Your task to perform on an android device: add a label to a message in the gmail app Image 0: 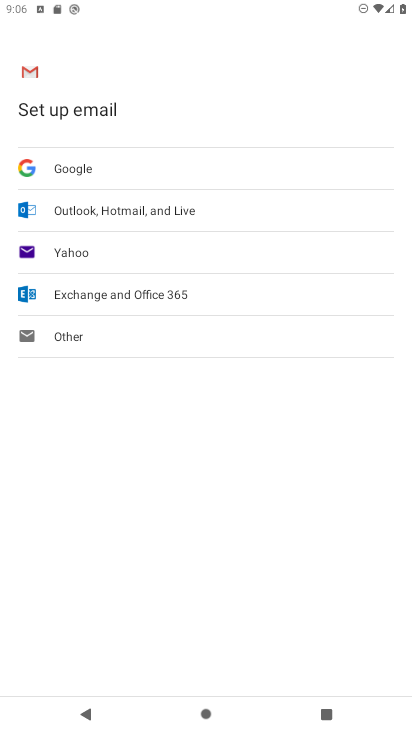
Step 0: press home button
Your task to perform on an android device: add a label to a message in the gmail app Image 1: 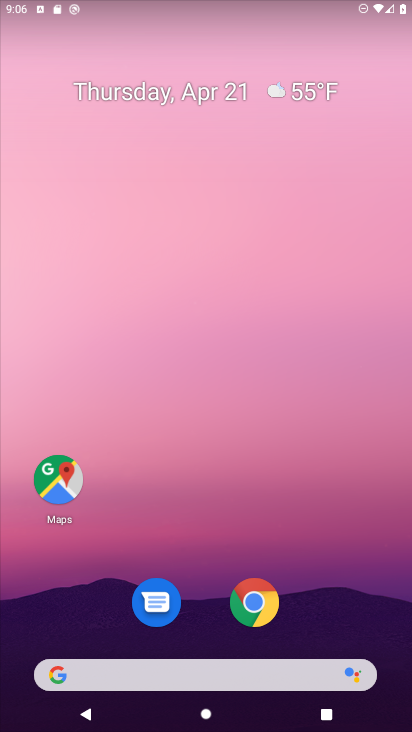
Step 1: drag from (209, 547) to (175, 15)
Your task to perform on an android device: add a label to a message in the gmail app Image 2: 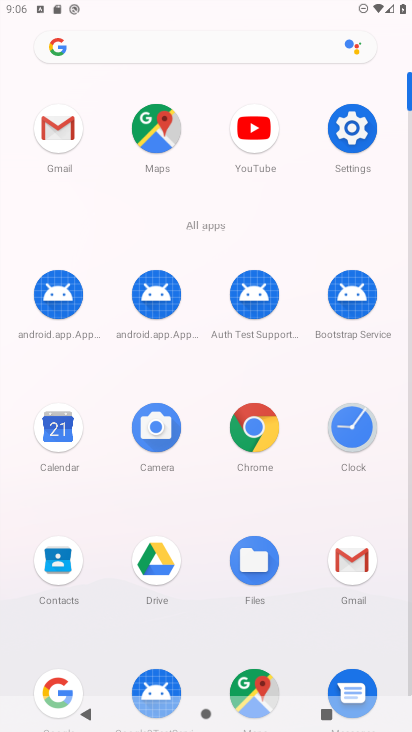
Step 2: click (348, 562)
Your task to perform on an android device: add a label to a message in the gmail app Image 3: 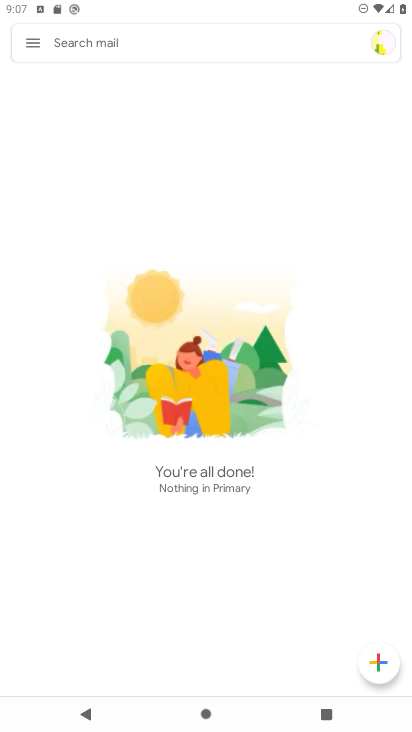
Step 3: click (44, 57)
Your task to perform on an android device: add a label to a message in the gmail app Image 4: 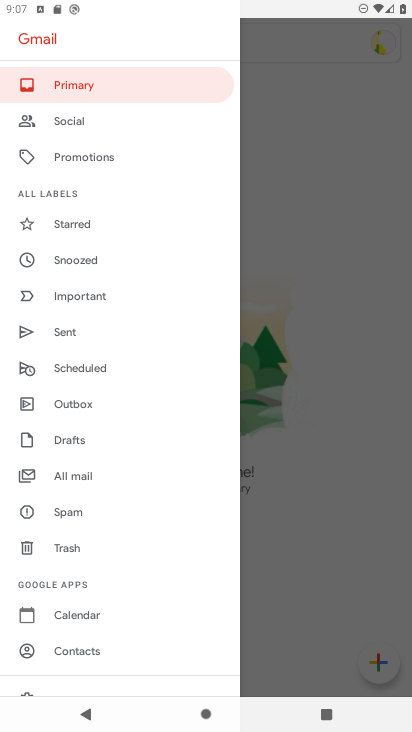
Step 4: click (92, 471)
Your task to perform on an android device: add a label to a message in the gmail app Image 5: 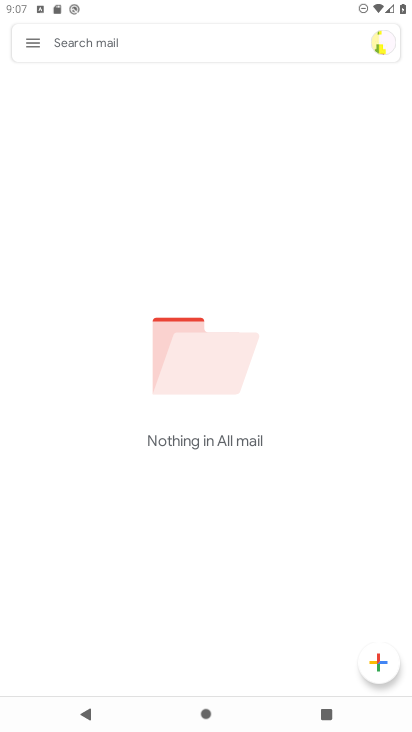
Step 5: task complete